Your task to perform on an android device: Go to Google maps Image 0: 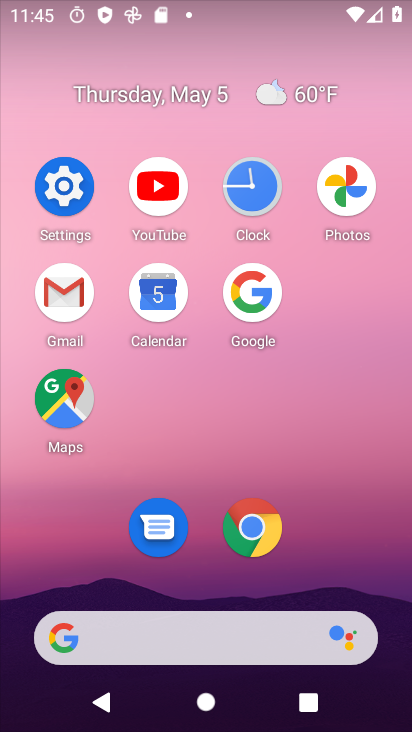
Step 0: click (78, 393)
Your task to perform on an android device: Go to Google maps Image 1: 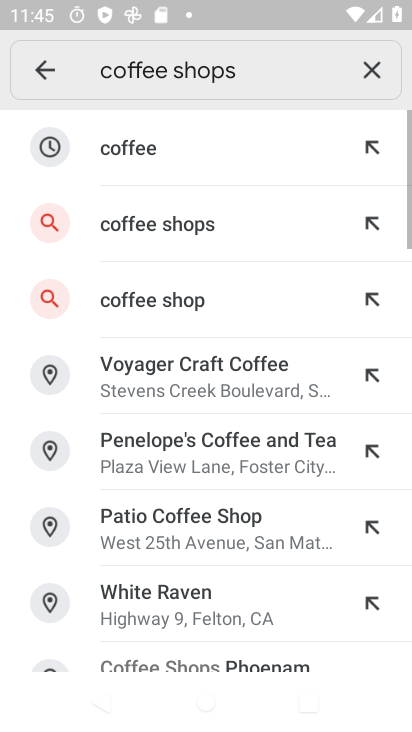
Step 1: task complete